Your task to perform on an android device: Show me recent news Image 0: 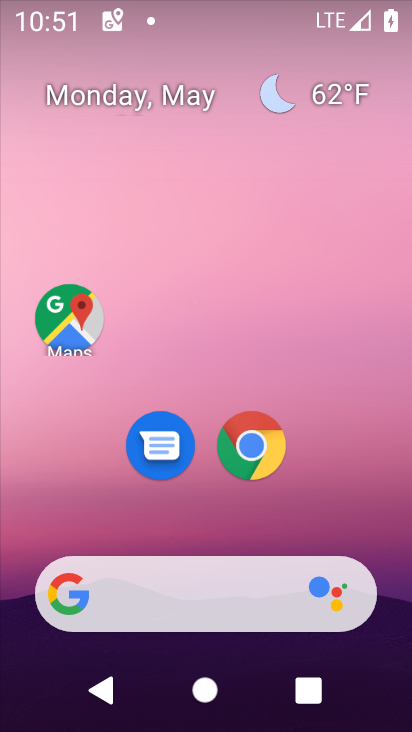
Step 0: drag from (394, 602) to (301, 148)
Your task to perform on an android device: Show me recent news Image 1: 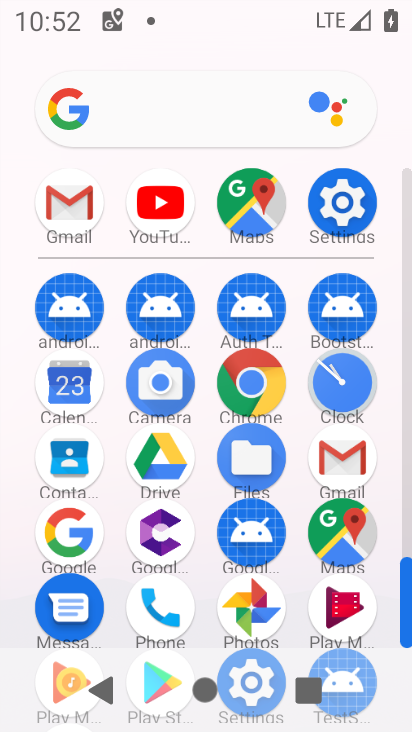
Step 1: click (53, 521)
Your task to perform on an android device: Show me recent news Image 2: 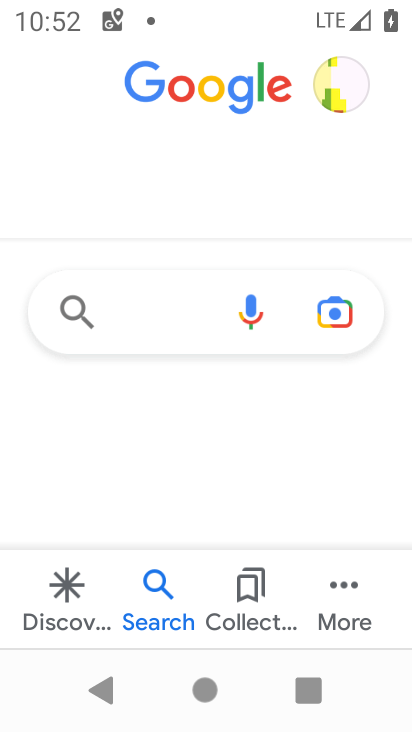
Step 2: click (161, 314)
Your task to perform on an android device: Show me recent news Image 3: 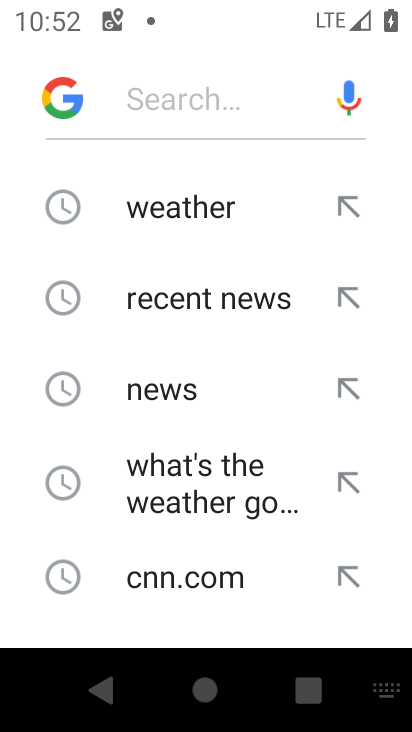
Step 3: click (210, 315)
Your task to perform on an android device: Show me recent news Image 4: 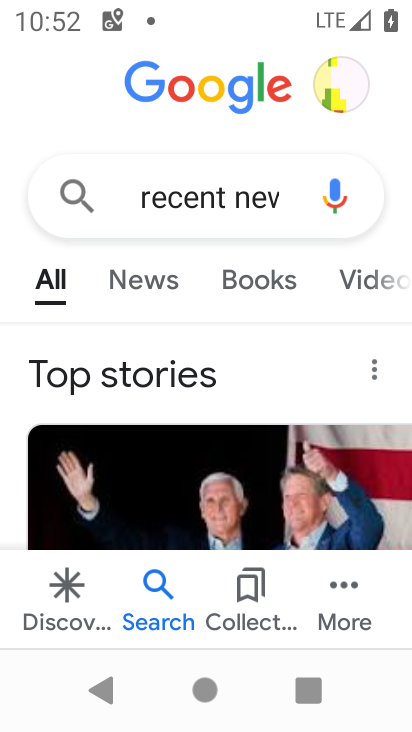
Step 4: task complete